Your task to perform on an android device: Go to Reddit.com Image 0: 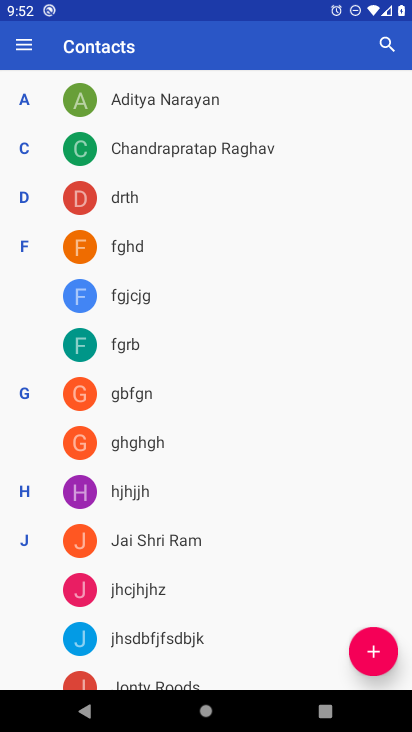
Step 0: press home button
Your task to perform on an android device: Go to Reddit.com Image 1: 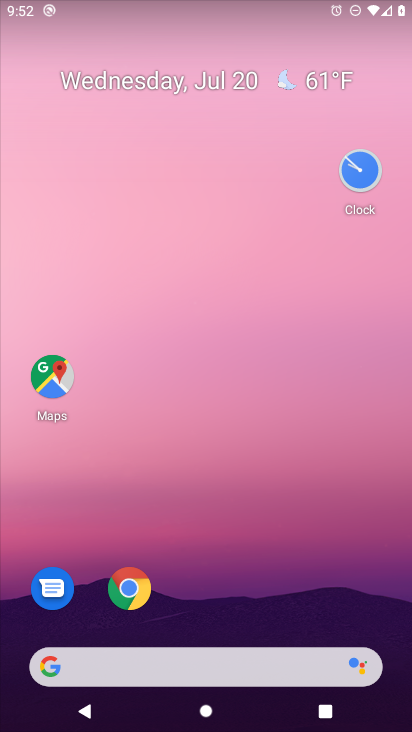
Step 1: click (145, 673)
Your task to perform on an android device: Go to Reddit.com Image 2: 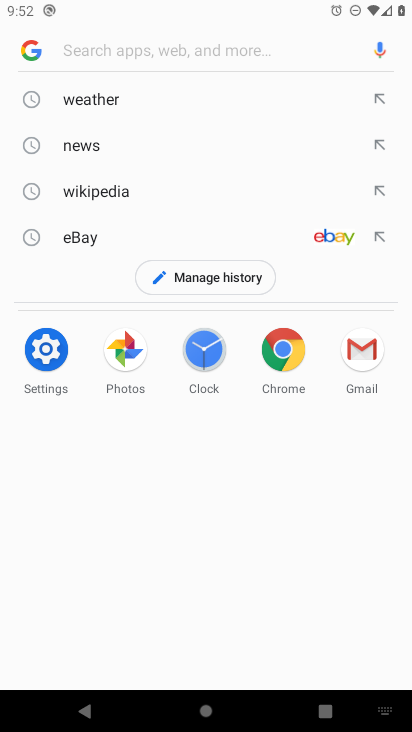
Step 2: type "Reddit.com"
Your task to perform on an android device: Go to Reddit.com Image 3: 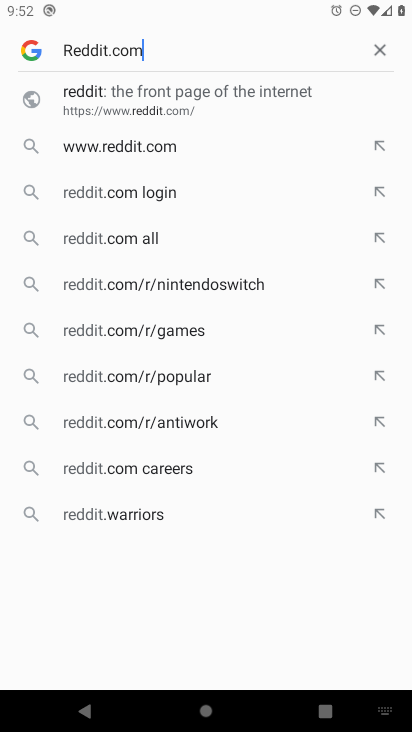
Step 3: type ""
Your task to perform on an android device: Go to Reddit.com Image 4: 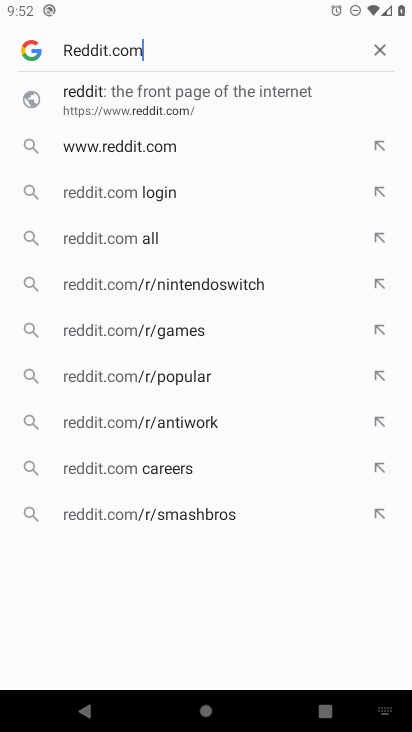
Step 4: click (118, 155)
Your task to perform on an android device: Go to Reddit.com Image 5: 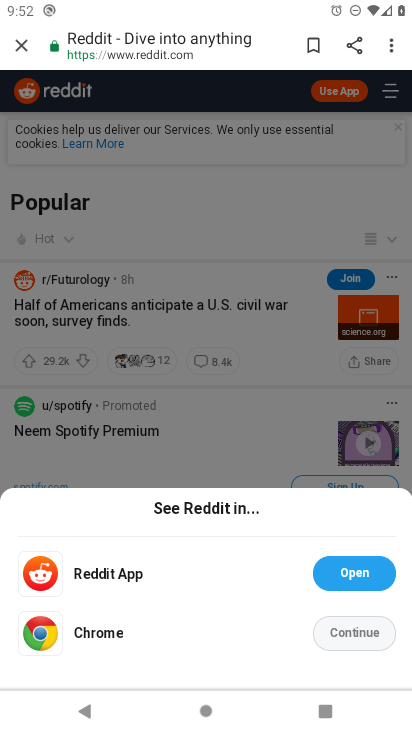
Step 5: task complete